Your task to perform on an android device: find snoozed emails in the gmail app Image 0: 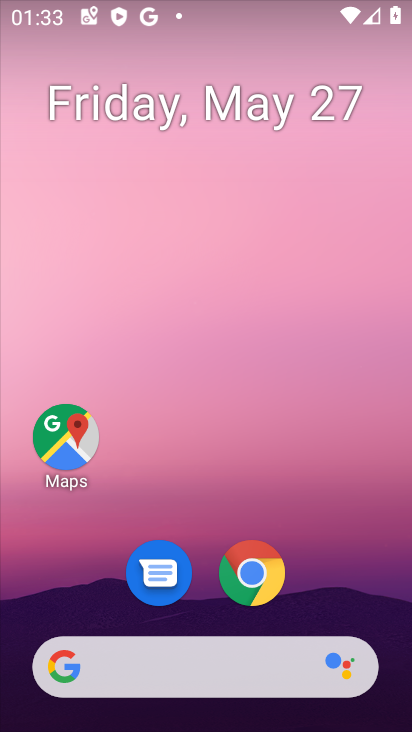
Step 0: drag from (220, 624) to (208, 107)
Your task to perform on an android device: find snoozed emails in the gmail app Image 1: 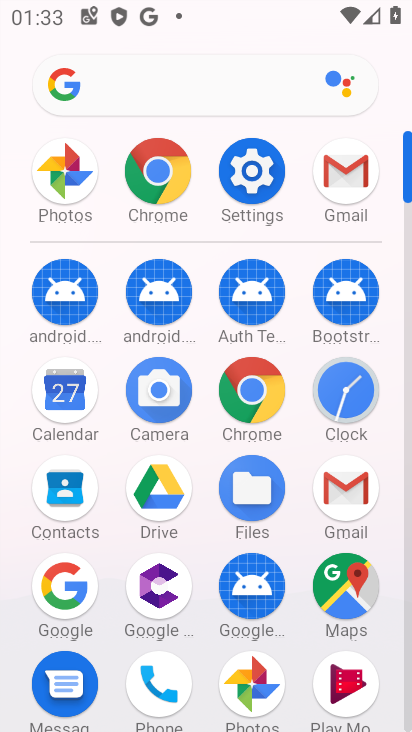
Step 1: click (352, 489)
Your task to perform on an android device: find snoozed emails in the gmail app Image 2: 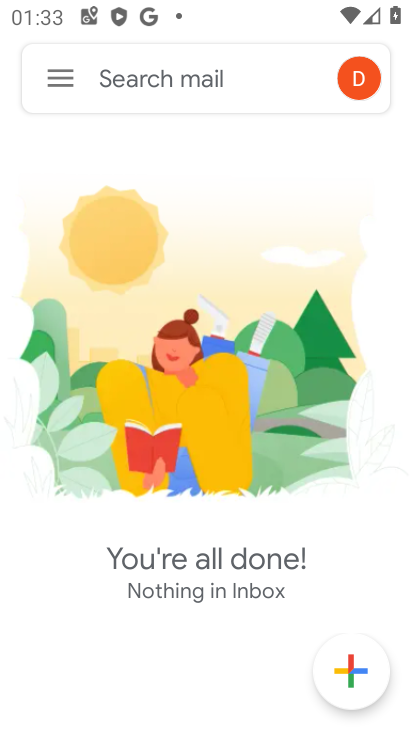
Step 2: click (52, 67)
Your task to perform on an android device: find snoozed emails in the gmail app Image 3: 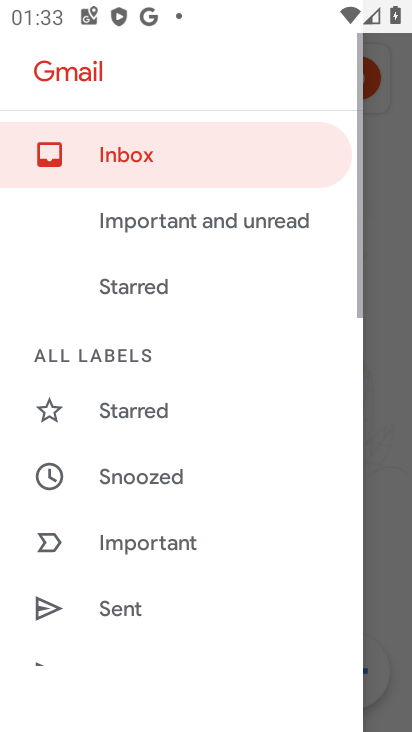
Step 3: click (116, 470)
Your task to perform on an android device: find snoozed emails in the gmail app Image 4: 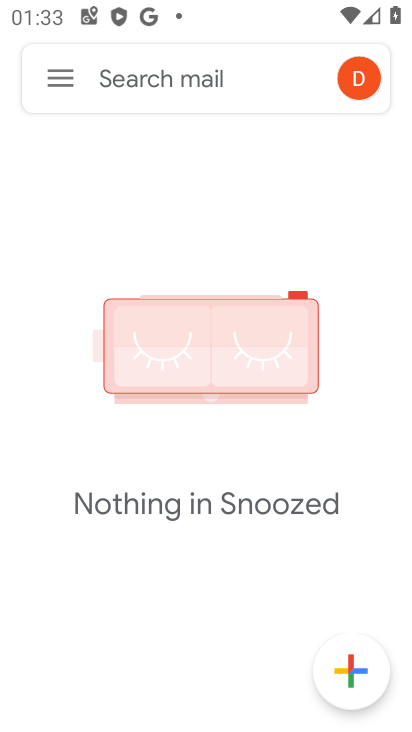
Step 4: task complete